Your task to perform on an android device: turn on notifications settings in the gmail app Image 0: 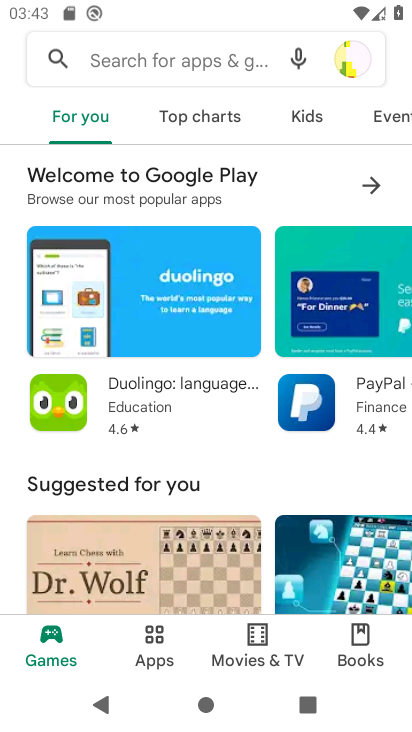
Step 0: press home button
Your task to perform on an android device: turn on notifications settings in the gmail app Image 1: 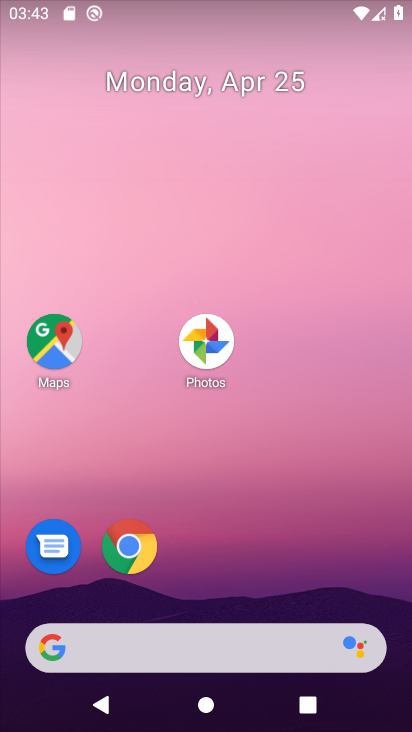
Step 1: drag from (248, 547) to (248, 238)
Your task to perform on an android device: turn on notifications settings in the gmail app Image 2: 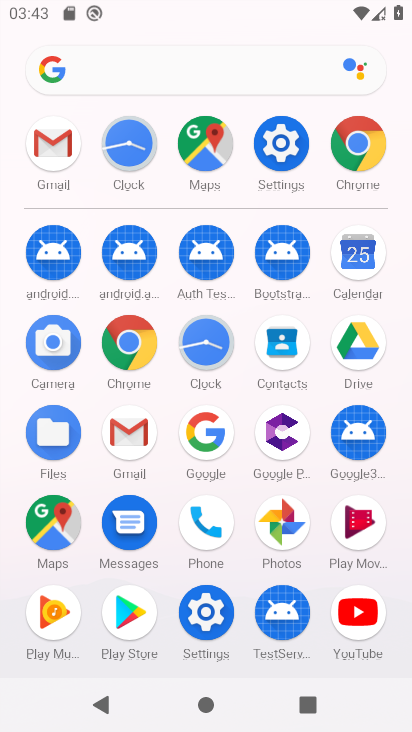
Step 2: click (135, 425)
Your task to perform on an android device: turn on notifications settings in the gmail app Image 3: 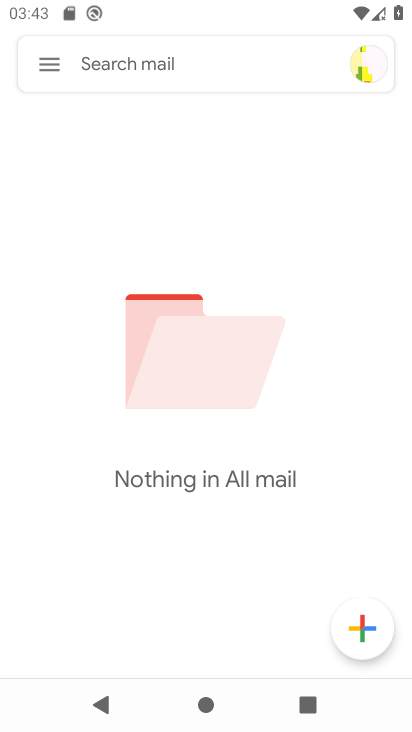
Step 3: click (49, 69)
Your task to perform on an android device: turn on notifications settings in the gmail app Image 4: 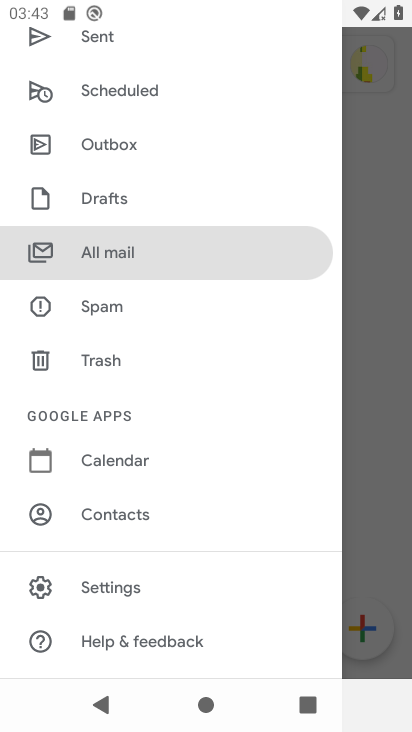
Step 4: click (138, 583)
Your task to perform on an android device: turn on notifications settings in the gmail app Image 5: 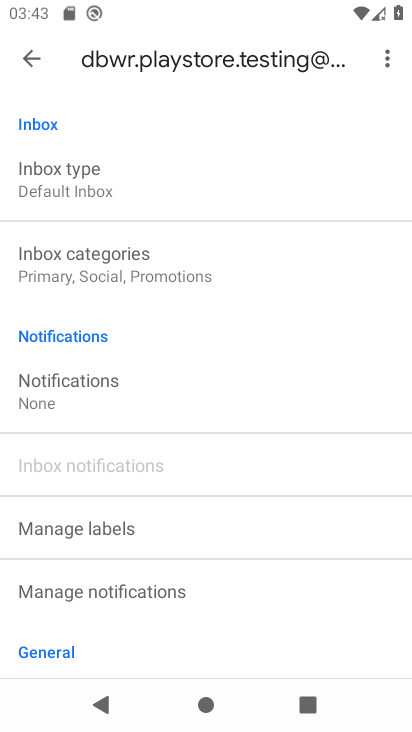
Step 5: click (100, 379)
Your task to perform on an android device: turn on notifications settings in the gmail app Image 6: 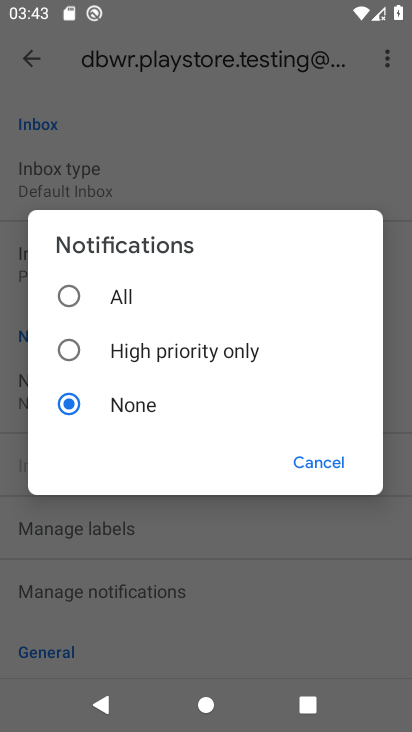
Step 6: click (107, 302)
Your task to perform on an android device: turn on notifications settings in the gmail app Image 7: 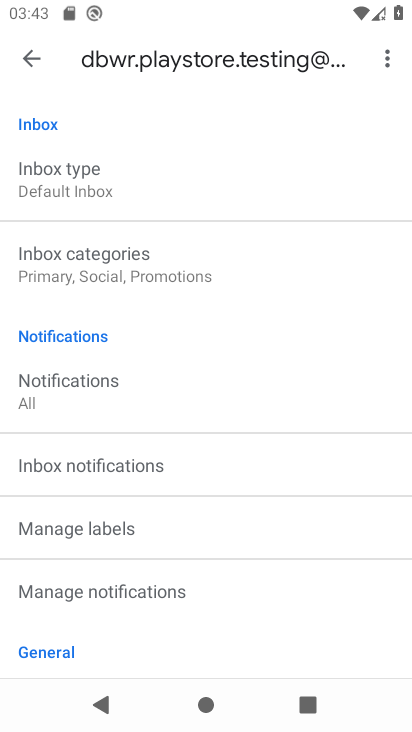
Step 7: task complete